Your task to perform on an android device: remove spam from my inbox in the gmail app Image 0: 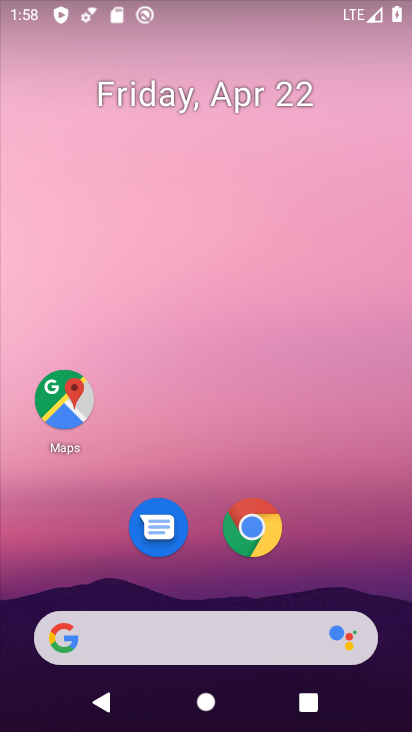
Step 0: drag from (343, 493) to (212, 125)
Your task to perform on an android device: remove spam from my inbox in the gmail app Image 1: 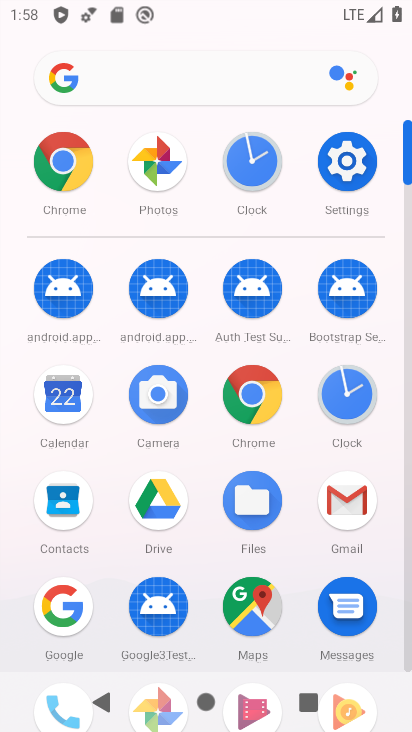
Step 1: click (351, 484)
Your task to perform on an android device: remove spam from my inbox in the gmail app Image 2: 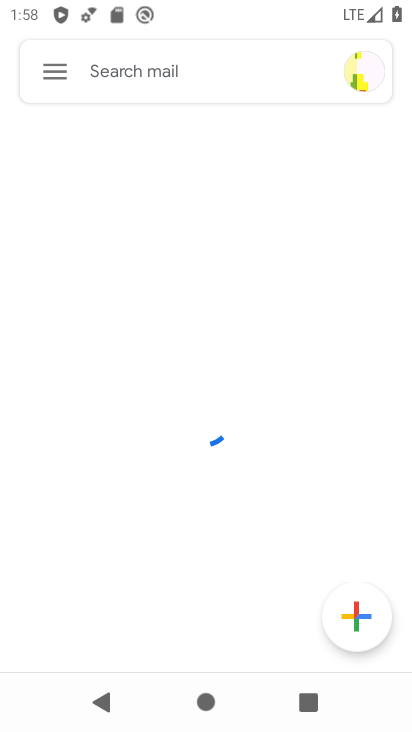
Step 2: click (54, 76)
Your task to perform on an android device: remove spam from my inbox in the gmail app Image 3: 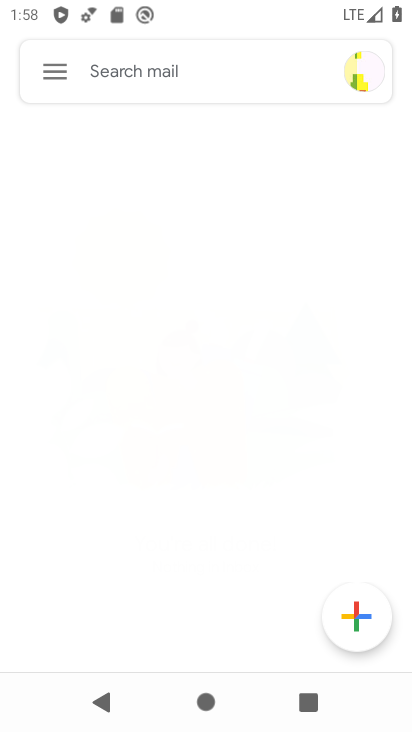
Step 3: click (54, 78)
Your task to perform on an android device: remove spam from my inbox in the gmail app Image 4: 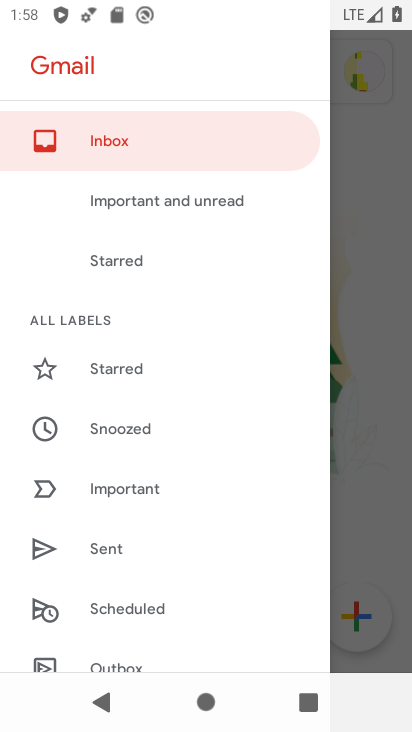
Step 4: task complete